Your task to perform on an android device: turn on translation in the chrome app Image 0: 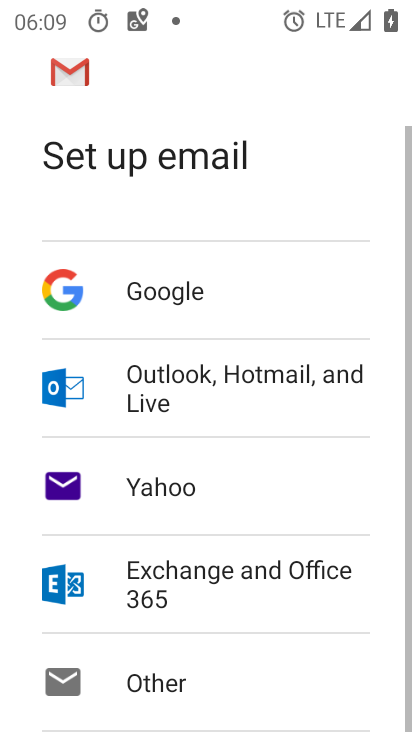
Step 0: press home button
Your task to perform on an android device: turn on translation in the chrome app Image 1: 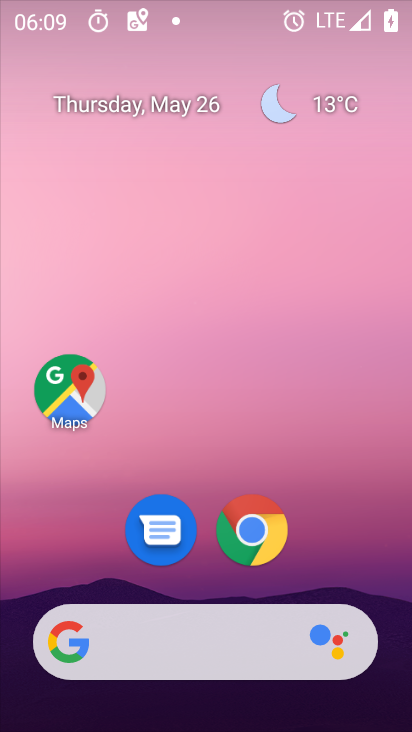
Step 1: drag from (282, 638) to (283, 63)
Your task to perform on an android device: turn on translation in the chrome app Image 2: 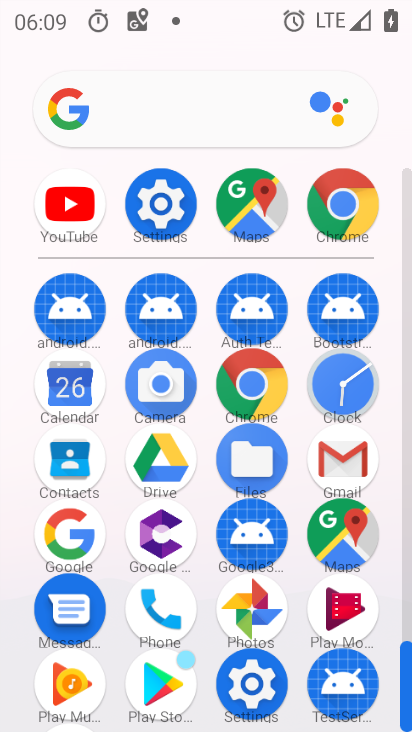
Step 2: click (278, 395)
Your task to perform on an android device: turn on translation in the chrome app Image 3: 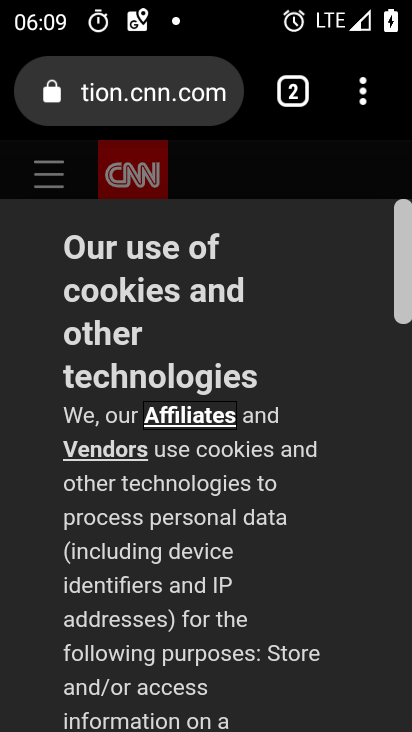
Step 3: drag from (360, 87) to (162, 564)
Your task to perform on an android device: turn on translation in the chrome app Image 4: 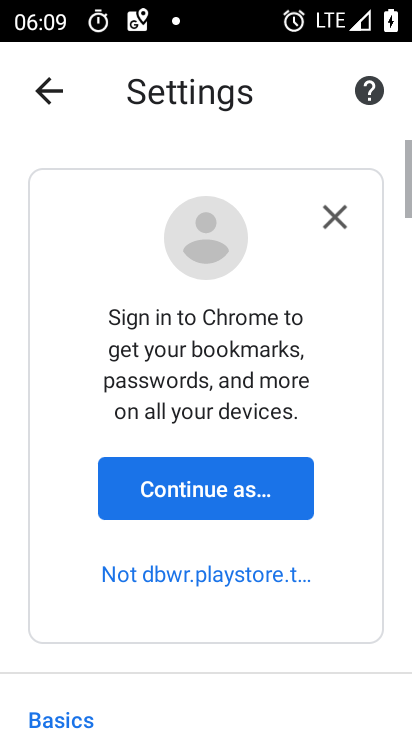
Step 4: drag from (300, 609) to (292, 31)
Your task to perform on an android device: turn on translation in the chrome app Image 5: 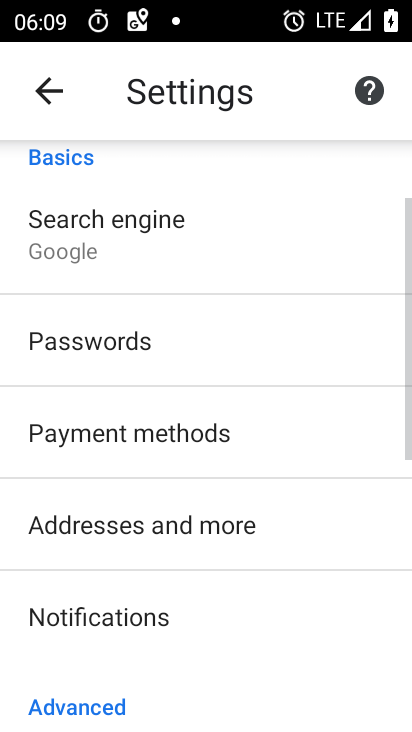
Step 5: drag from (310, 679) to (299, 130)
Your task to perform on an android device: turn on translation in the chrome app Image 6: 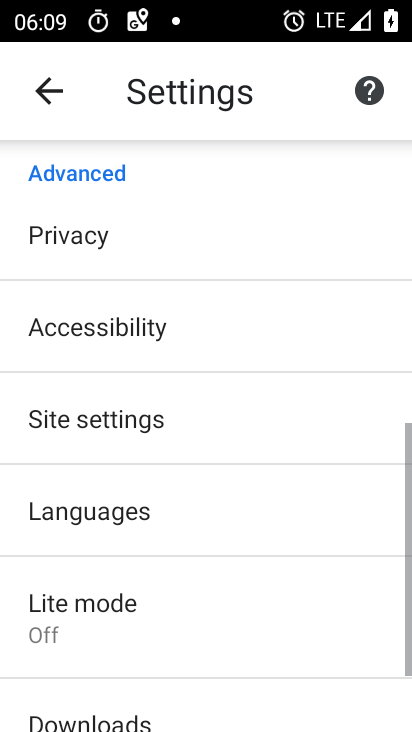
Step 6: click (203, 532)
Your task to perform on an android device: turn on translation in the chrome app Image 7: 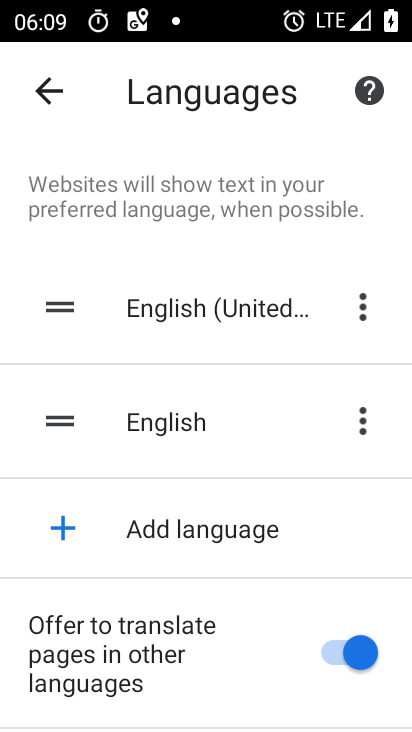
Step 7: press back button
Your task to perform on an android device: turn on translation in the chrome app Image 8: 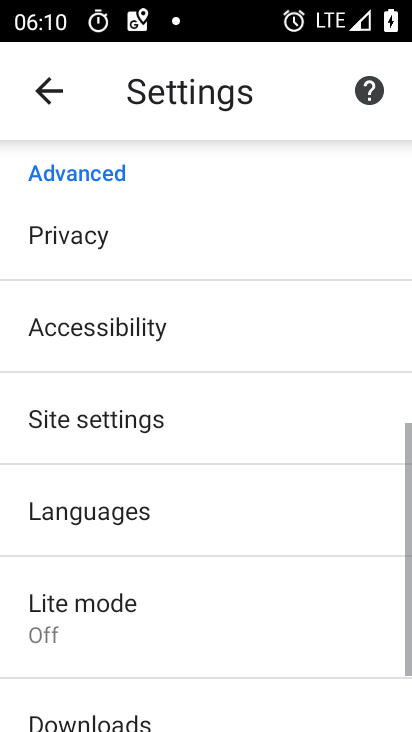
Step 8: click (207, 519)
Your task to perform on an android device: turn on translation in the chrome app Image 9: 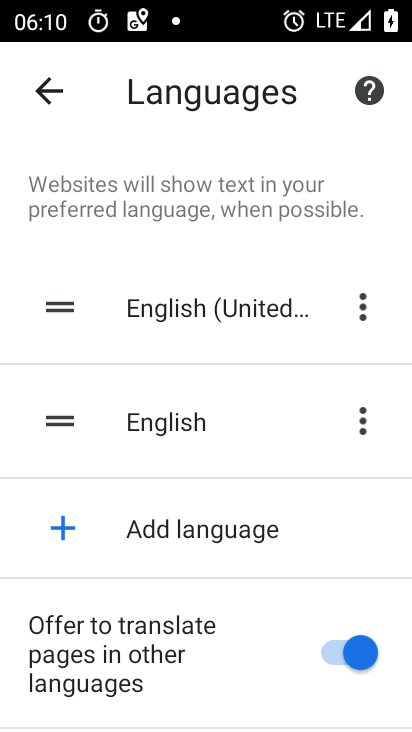
Step 9: task complete